Your task to perform on an android device: empty trash in google photos Image 0: 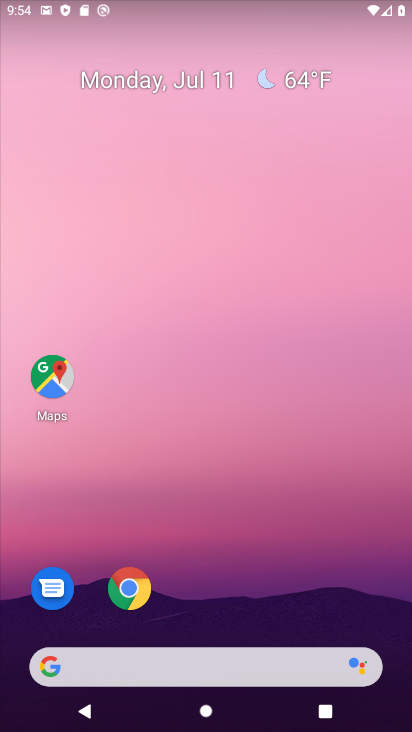
Step 0: drag from (199, 649) to (306, 126)
Your task to perform on an android device: empty trash in google photos Image 1: 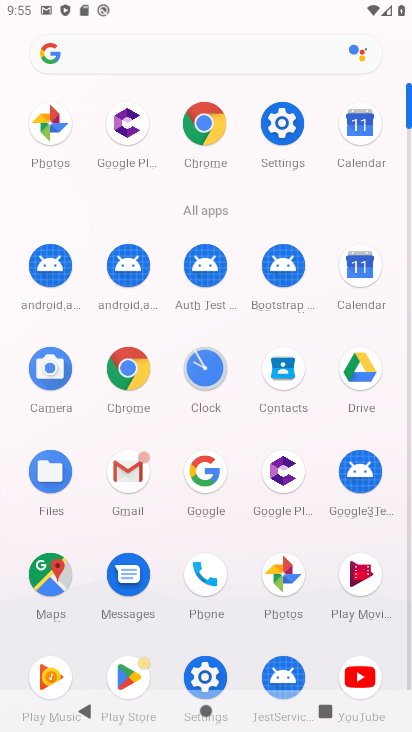
Step 1: click (280, 570)
Your task to perform on an android device: empty trash in google photos Image 2: 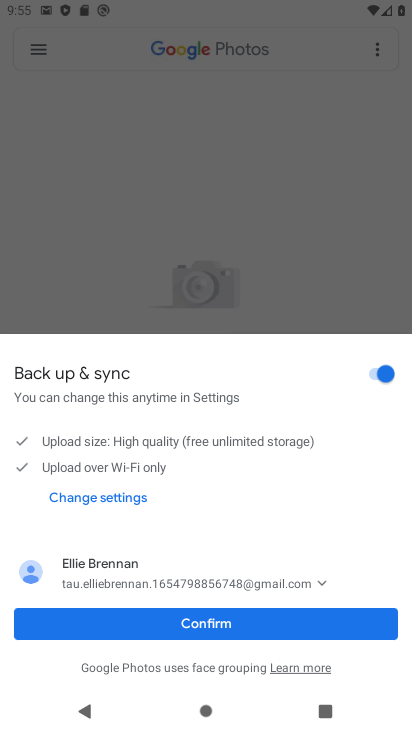
Step 2: click (219, 619)
Your task to perform on an android device: empty trash in google photos Image 3: 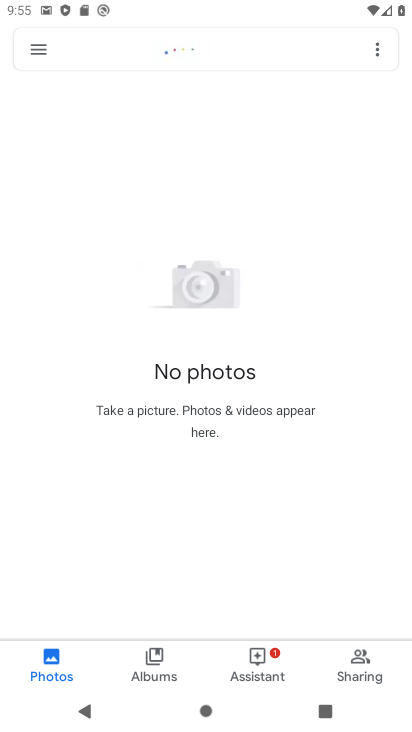
Step 3: click (37, 61)
Your task to perform on an android device: empty trash in google photos Image 4: 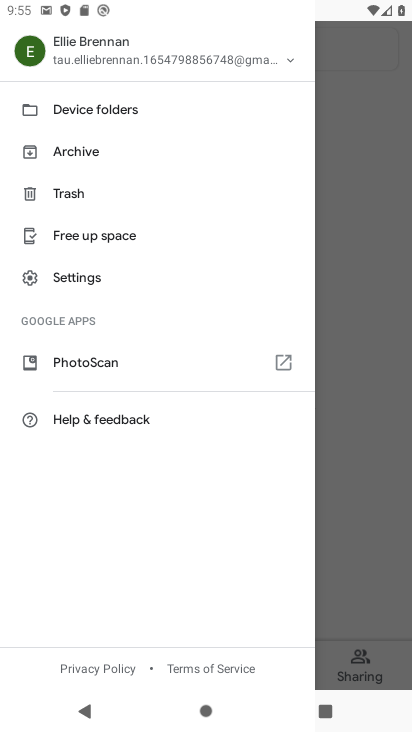
Step 4: click (94, 183)
Your task to perform on an android device: empty trash in google photos Image 5: 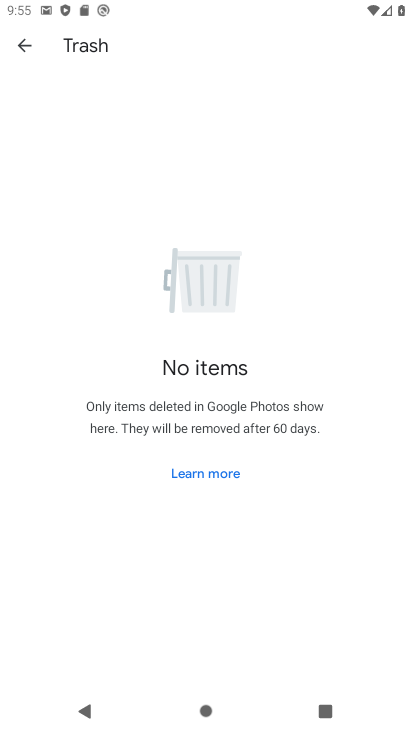
Step 5: task complete